Your task to perform on an android device: allow cookies in the chrome app Image 0: 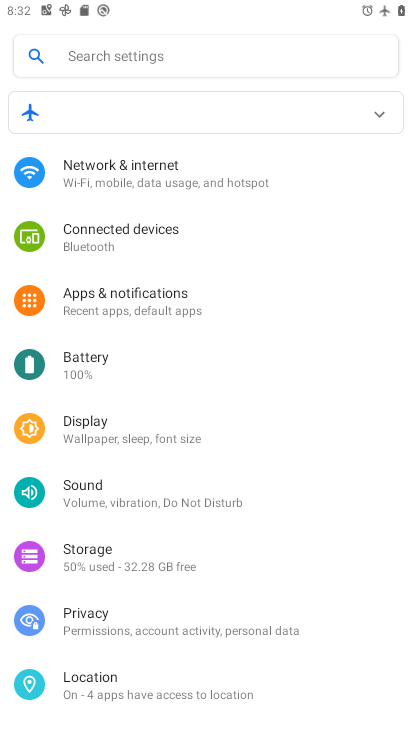
Step 0: press home button
Your task to perform on an android device: allow cookies in the chrome app Image 1: 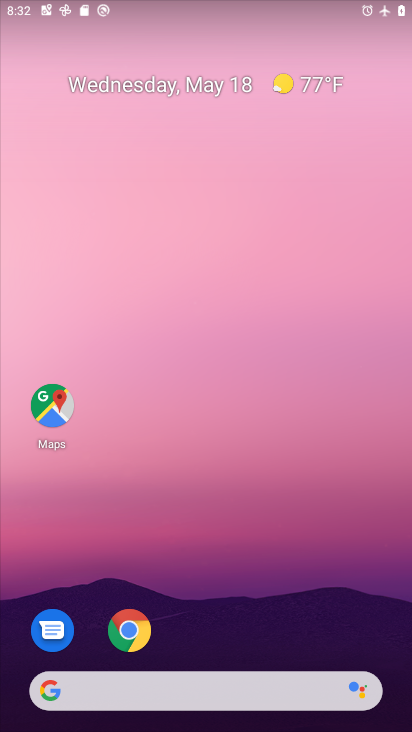
Step 1: click (131, 628)
Your task to perform on an android device: allow cookies in the chrome app Image 2: 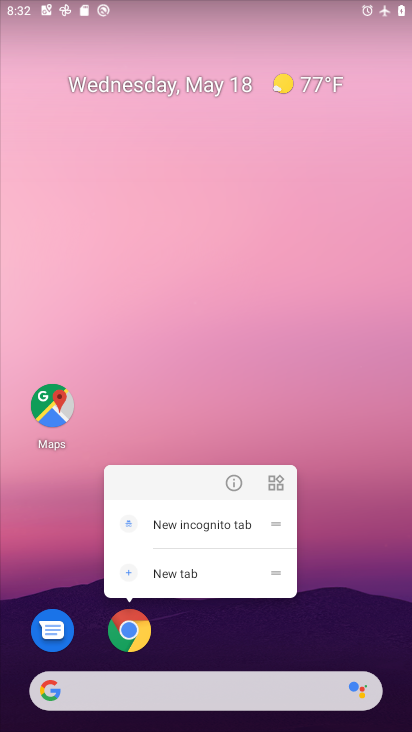
Step 2: click (131, 634)
Your task to perform on an android device: allow cookies in the chrome app Image 3: 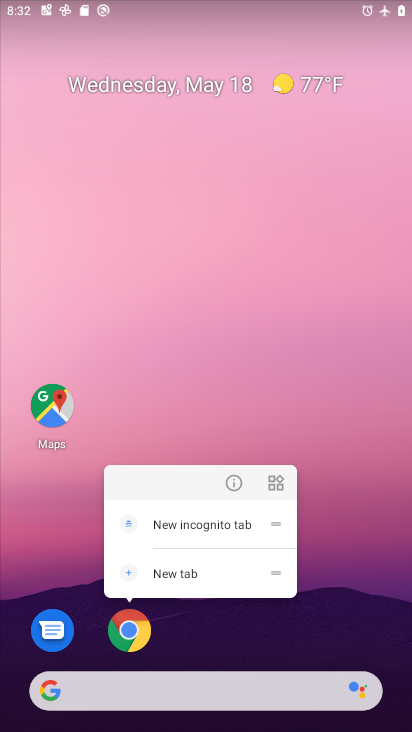
Step 3: click (131, 649)
Your task to perform on an android device: allow cookies in the chrome app Image 4: 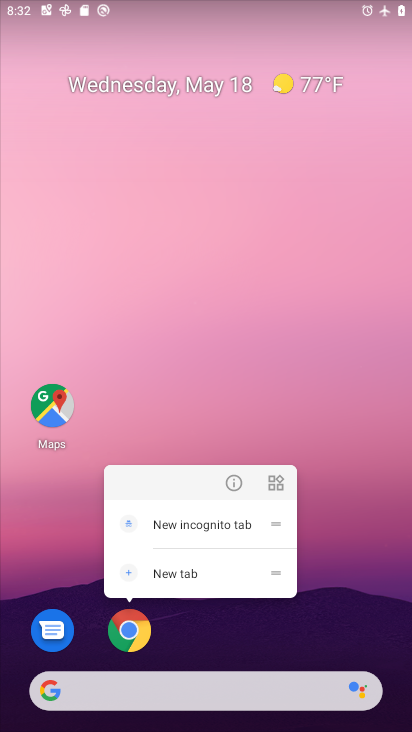
Step 4: click (132, 630)
Your task to perform on an android device: allow cookies in the chrome app Image 5: 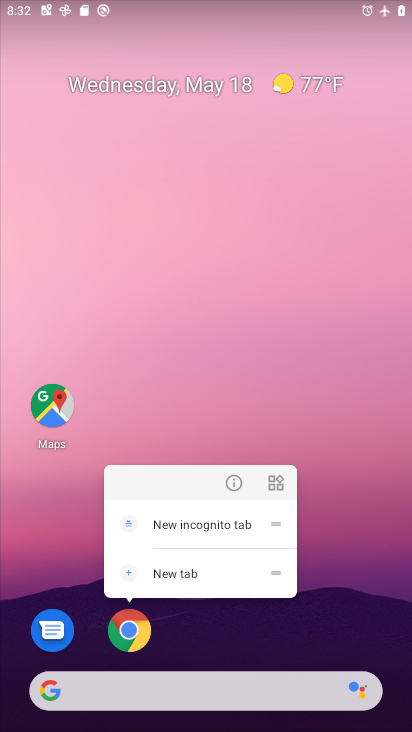
Step 5: click (123, 645)
Your task to perform on an android device: allow cookies in the chrome app Image 6: 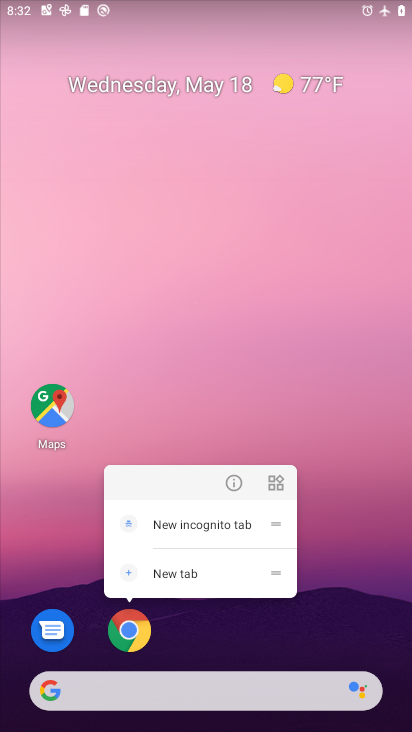
Step 6: click (130, 640)
Your task to perform on an android device: allow cookies in the chrome app Image 7: 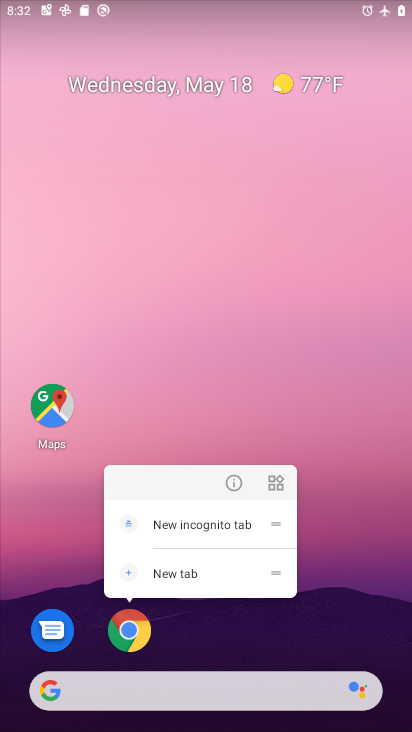
Step 7: click (127, 636)
Your task to perform on an android device: allow cookies in the chrome app Image 8: 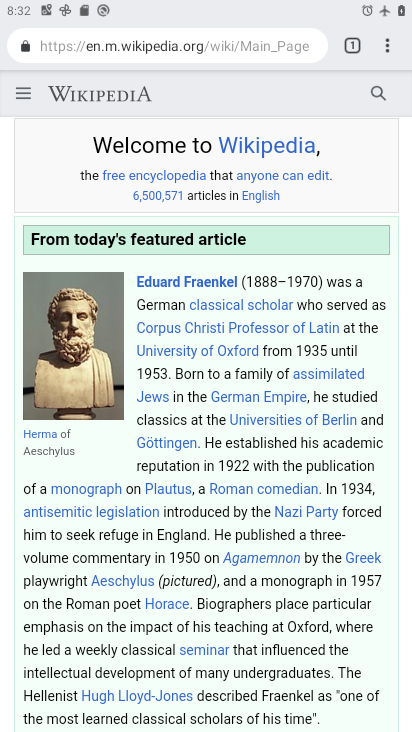
Step 8: drag from (383, 48) to (252, 503)
Your task to perform on an android device: allow cookies in the chrome app Image 9: 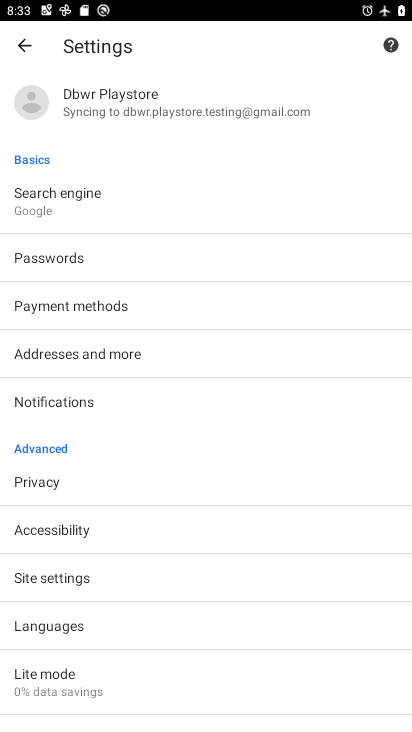
Step 9: click (64, 569)
Your task to perform on an android device: allow cookies in the chrome app Image 10: 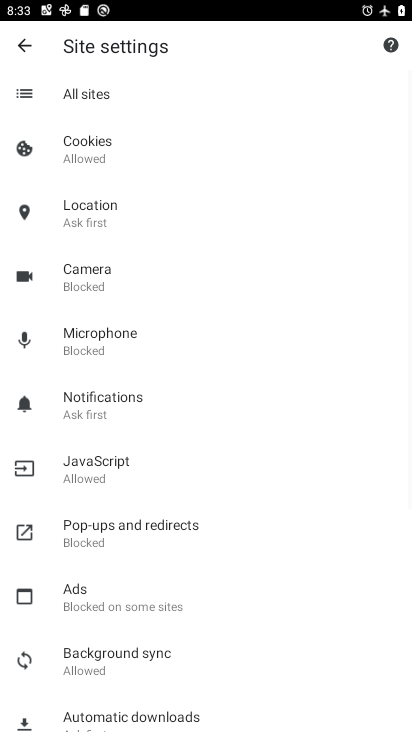
Step 10: click (97, 152)
Your task to perform on an android device: allow cookies in the chrome app Image 11: 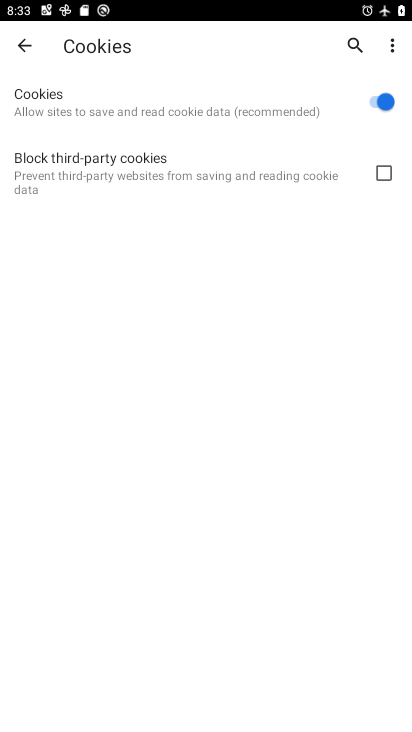
Step 11: task complete